Your task to perform on an android device: turn off notifications settings in the gmail app Image 0: 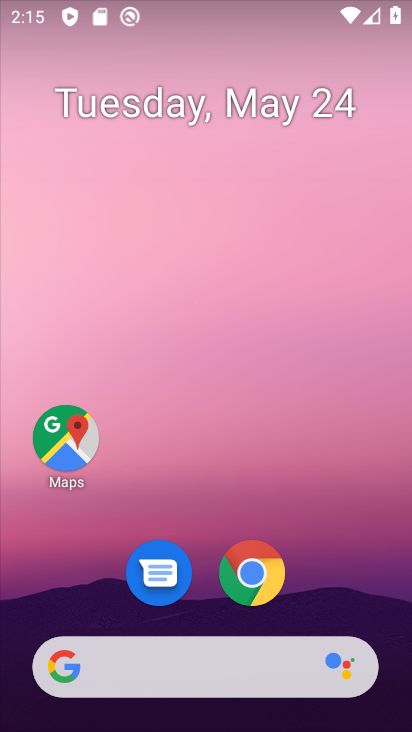
Step 0: drag from (326, 515) to (261, 51)
Your task to perform on an android device: turn off notifications settings in the gmail app Image 1: 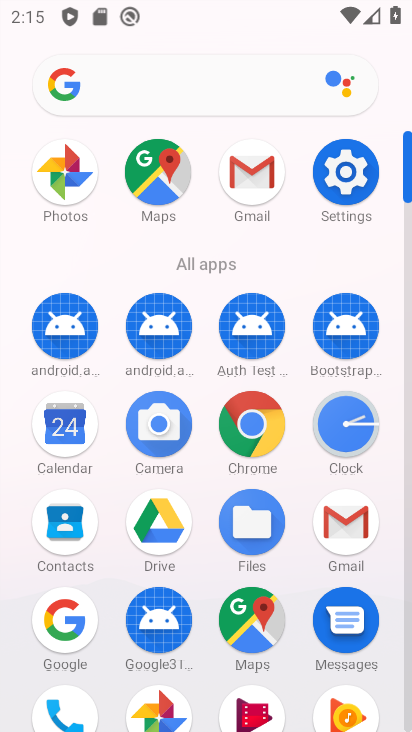
Step 1: drag from (17, 600) to (10, 229)
Your task to perform on an android device: turn off notifications settings in the gmail app Image 2: 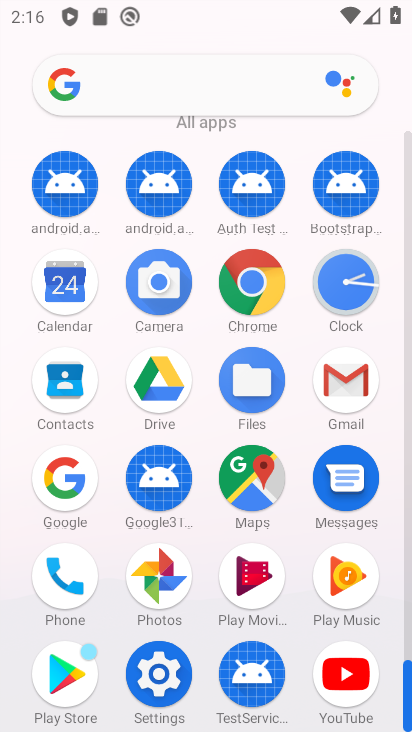
Step 2: click (342, 373)
Your task to perform on an android device: turn off notifications settings in the gmail app Image 3: 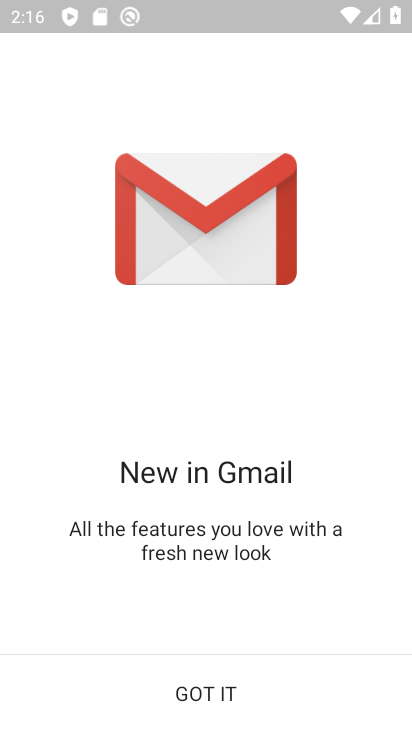
Step 3: click (214, 715)
Your task to perform on an android device: turn off notifications settings in the gmail app Image 4: 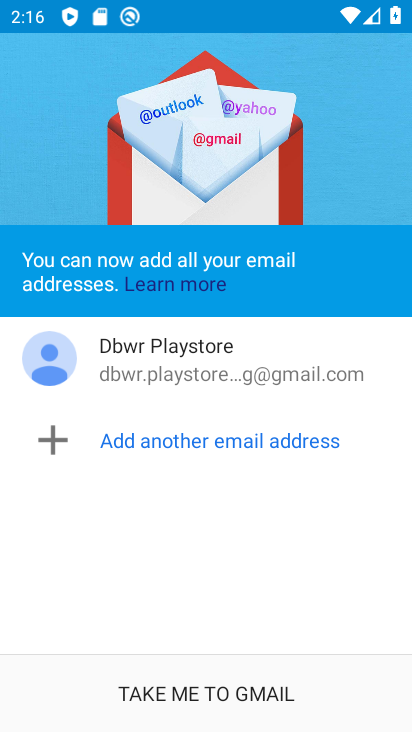
Step 4: click (214, 701)
Your task to perform on an android device: turn off notifications settings in the gmail app Image 5: 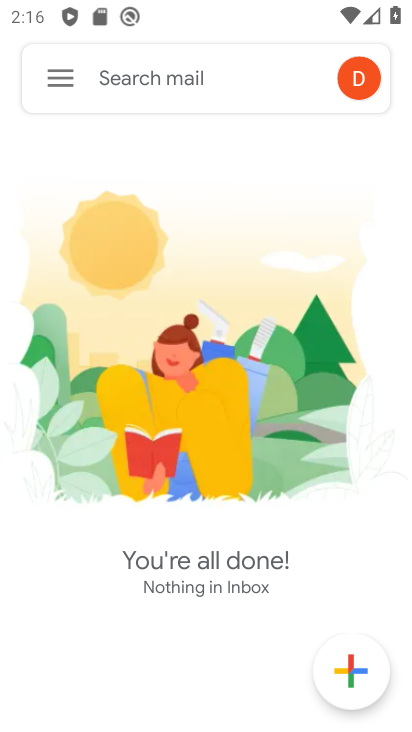
Step 5: click (56, 83)
Your task to perform on an android device: turn off notifications settings in the gmail app Image 6: 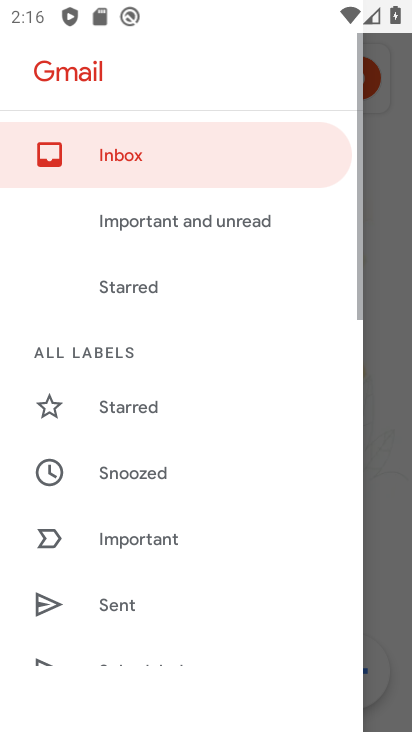
Step 6: drag from (126, 647) to (185, 175)
Your task to perform on an android device: turn off notifications settings in the gmail app Image 7: 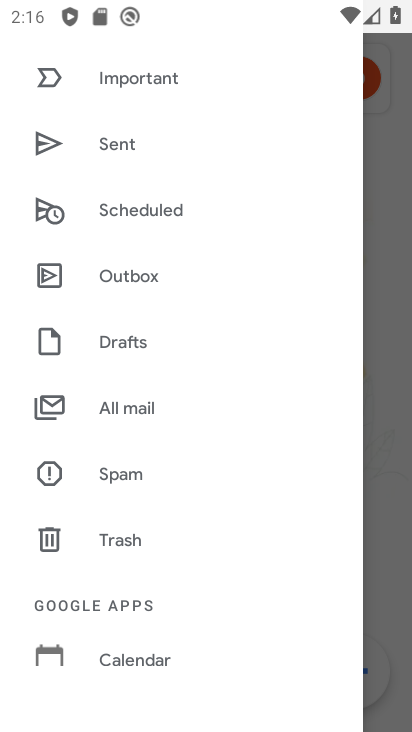
Step 7: drag from (126, 635) to (208, 159)
Your task to perform on an android device: turn off notifications settings in the gmail app Image 8: 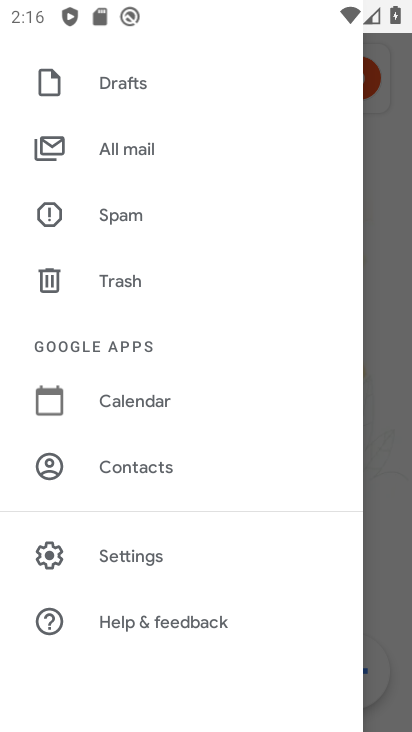
Step 8: click (150, 560)
Your task to perform on an android device: turn off notifications settings in the gmail app Image 9: 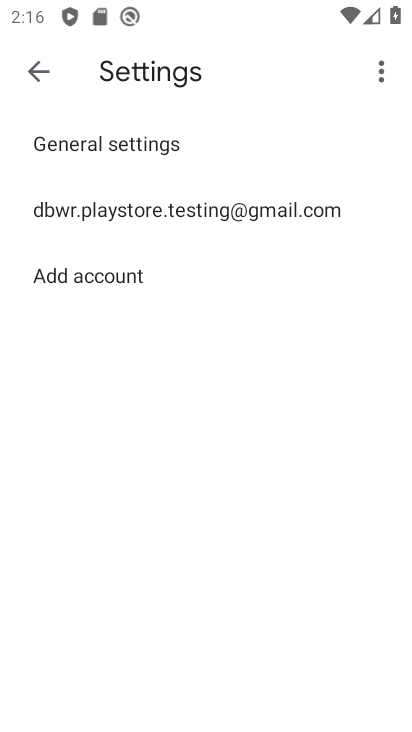
Step 9: click (159, 216)
Your task to perform on an android device: turn off notifications settings in the gmail app Image 10: 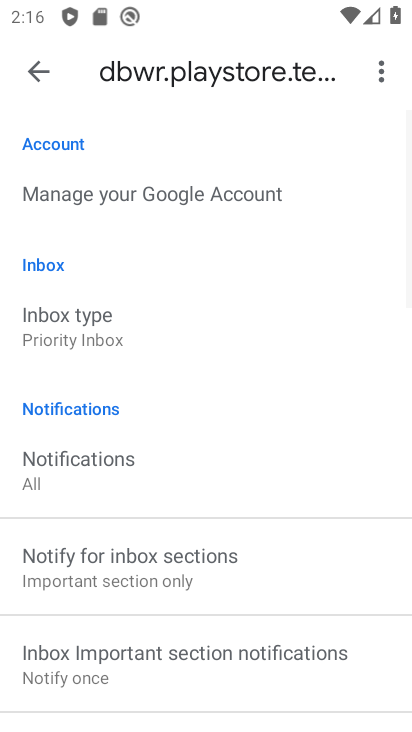
Step 10: drag from (238, 556) to (237, 116)
Your task to perform on an android device: turn off notifications settings in the gmail app Image 11: 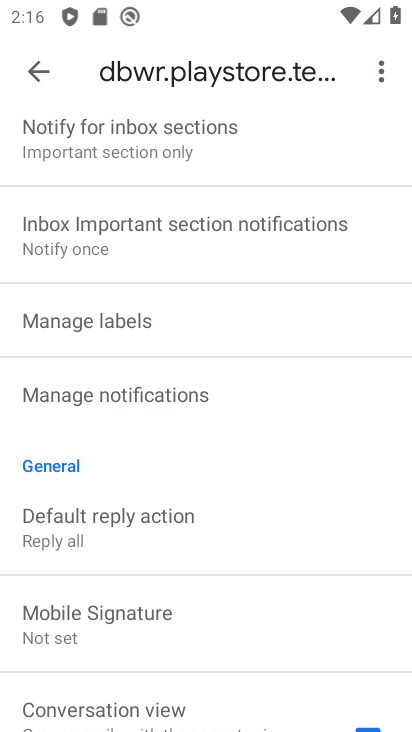
Step 11: click (170, 397)
Your task to perform on an android device: turn off notifications settings in the gmail app Image 12: 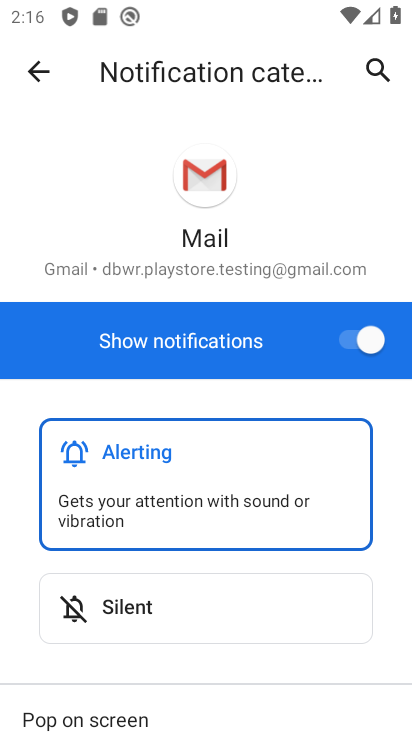
Step 12: click (345, 343)
Your task to perform on an android device: turn off notifications settings in the gmail app Image 13: 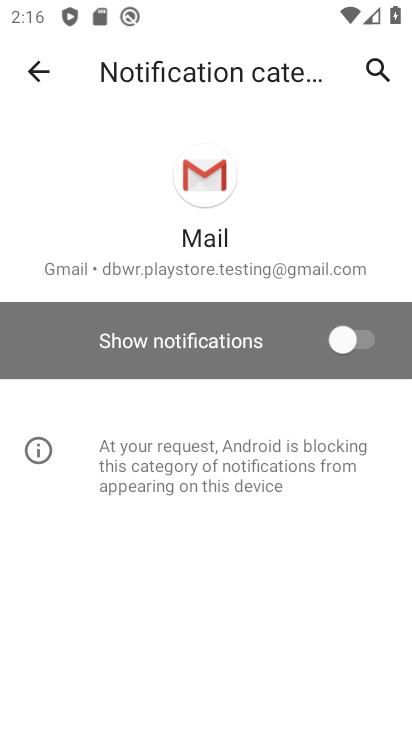
Step 13: task complete